Your task to perform on an android device: open app "LinkedIn" Image 0: 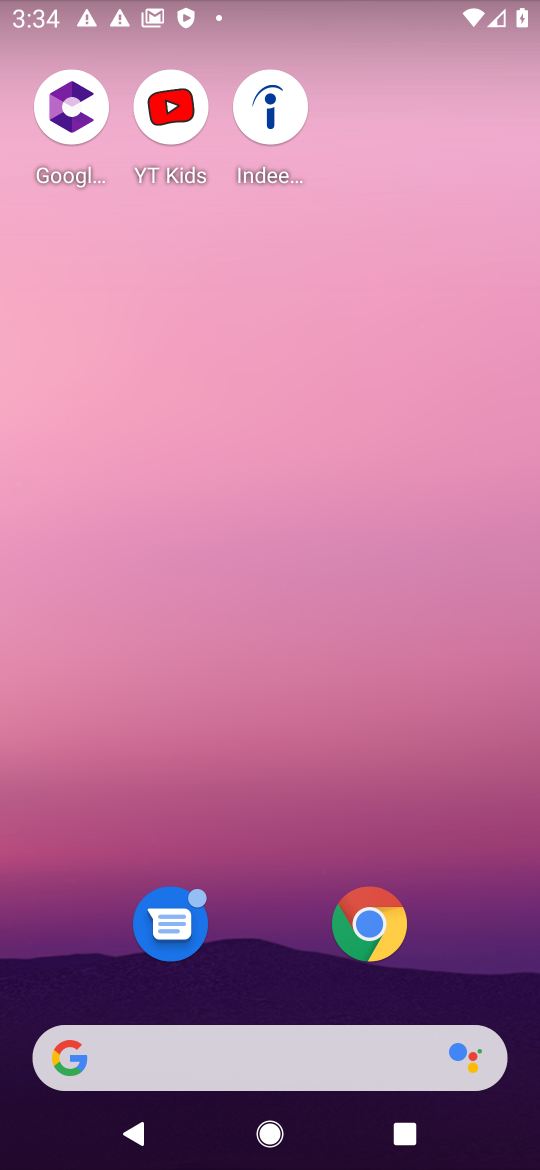
Step 0: drag from (313, 1156) to (310, 18)
Your task to perform on an android device: open app "LinkedIn" Image 1: 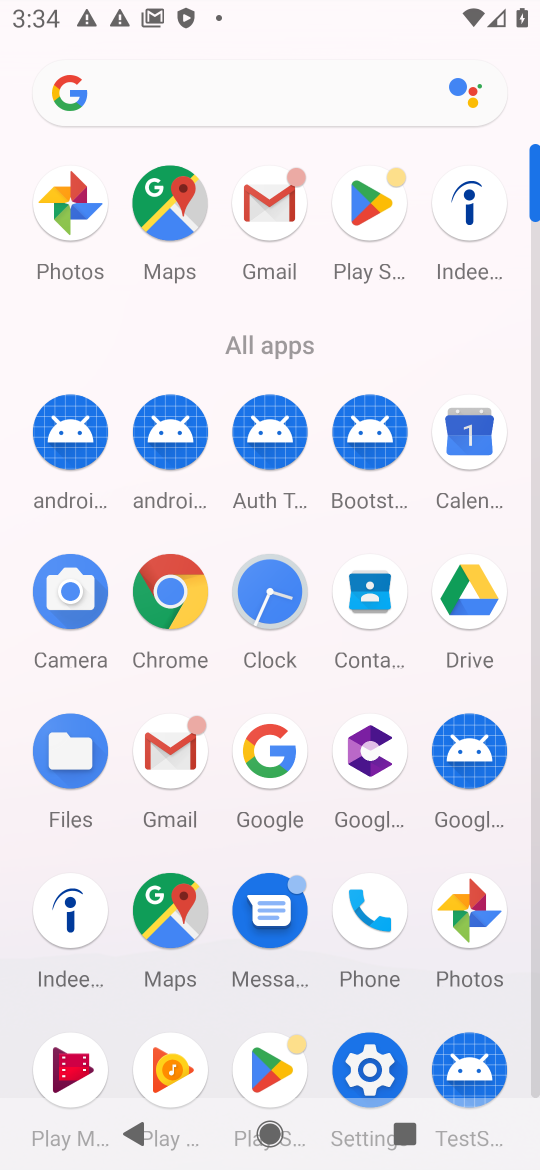
Step 1: click (365, 212)
Your task to perform on an android device: open app "LinkedIn" Image 2: 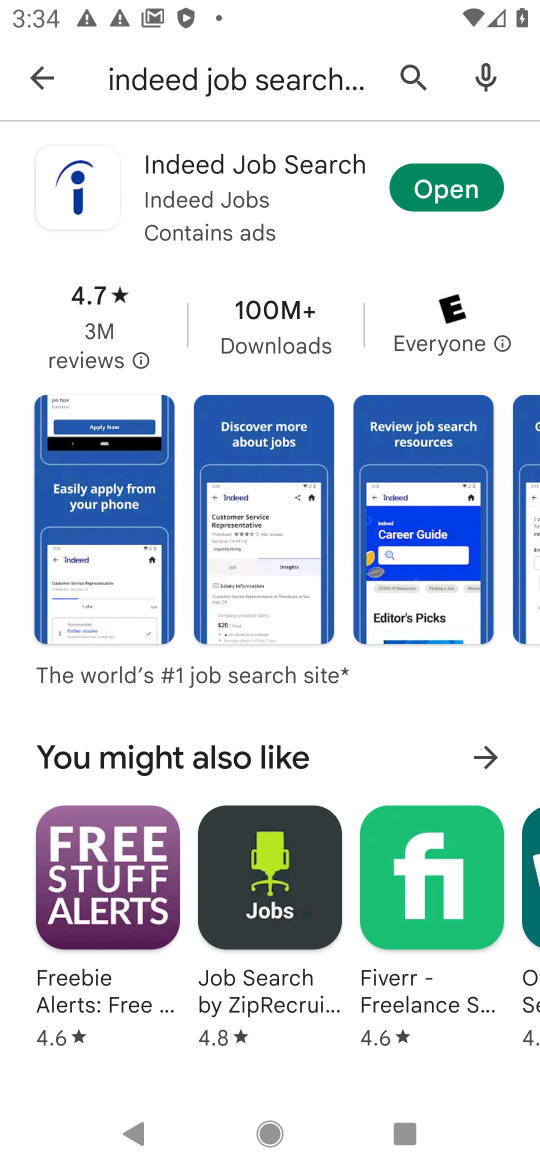
Step 2: click (401, 72)
Your task to perform on an android device: open app "LinkedIn" Image 3: 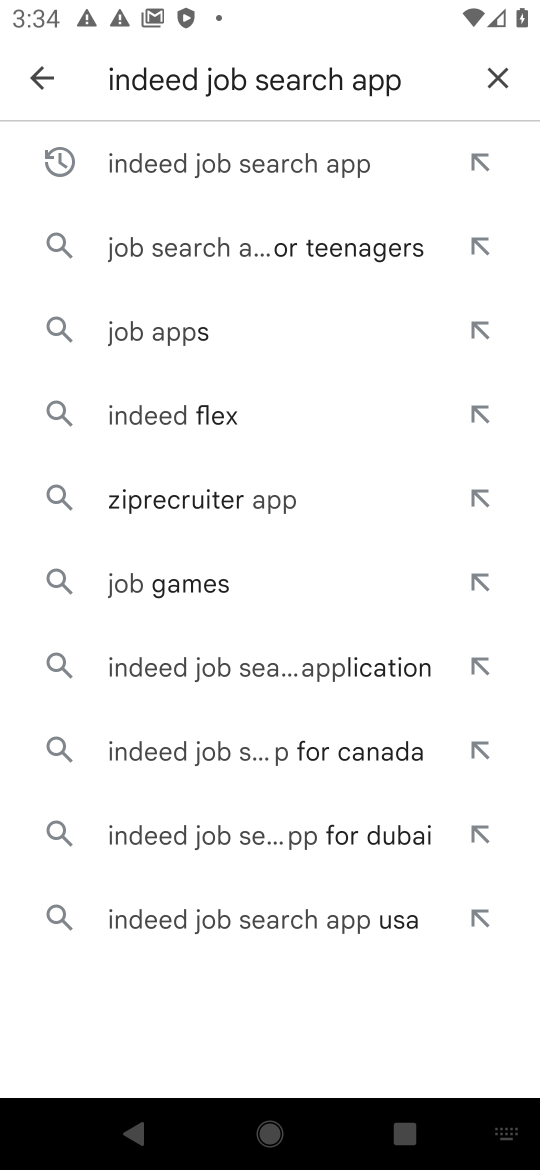
Step 3: click (500, 78)
Your task to perform on an android device: open app "LinkedIn" Image 4: 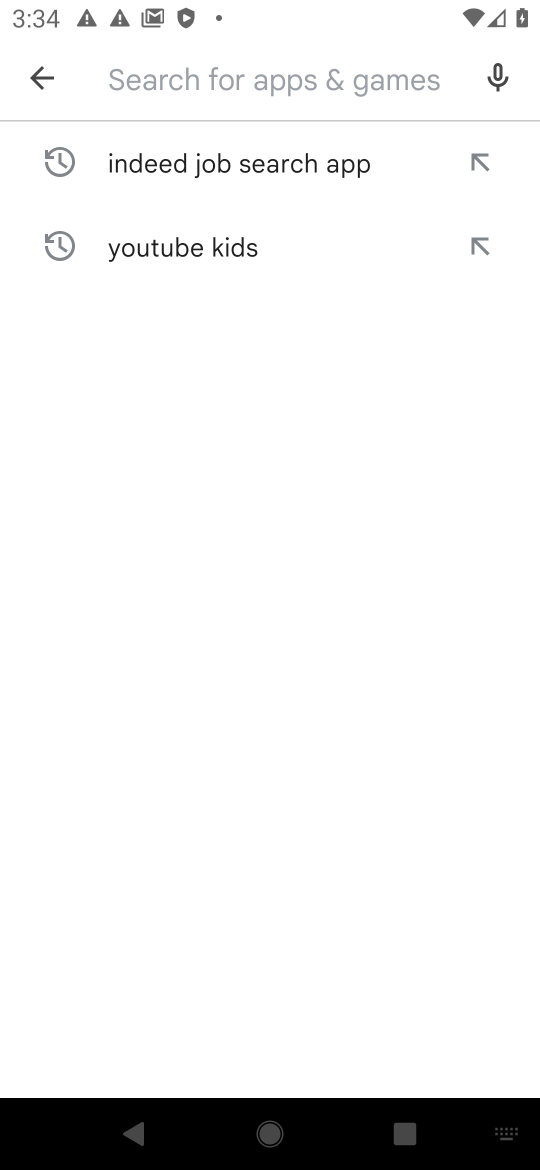
Step 4: type "Linkedin"
Your task to perform on an android device: open app "LinkedIn" Image 5: 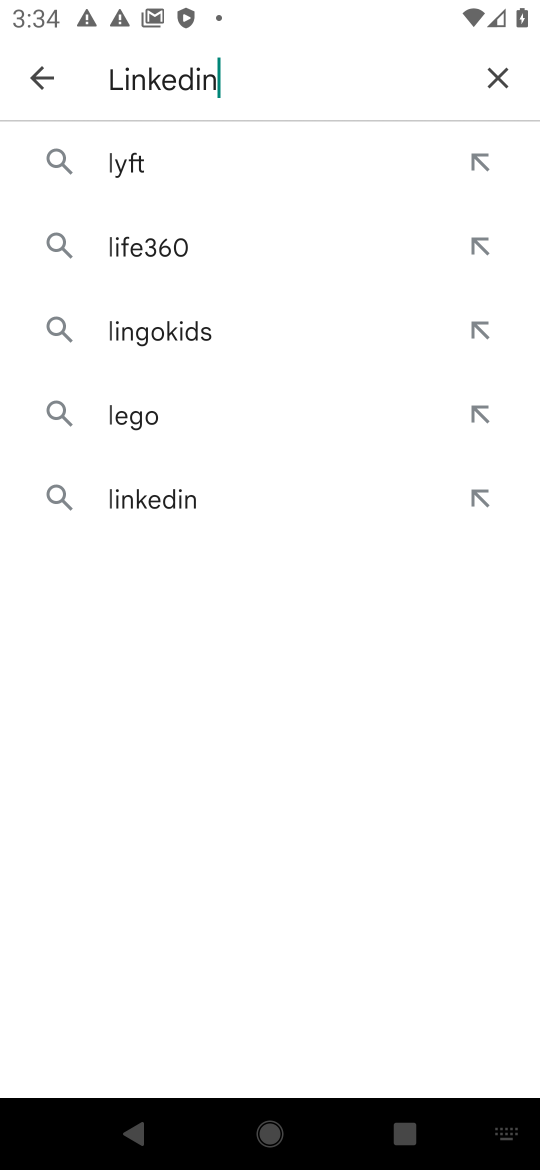
Step 5: type ""
Your task to perform on an android device: open app "LinkedIn" Image 6: 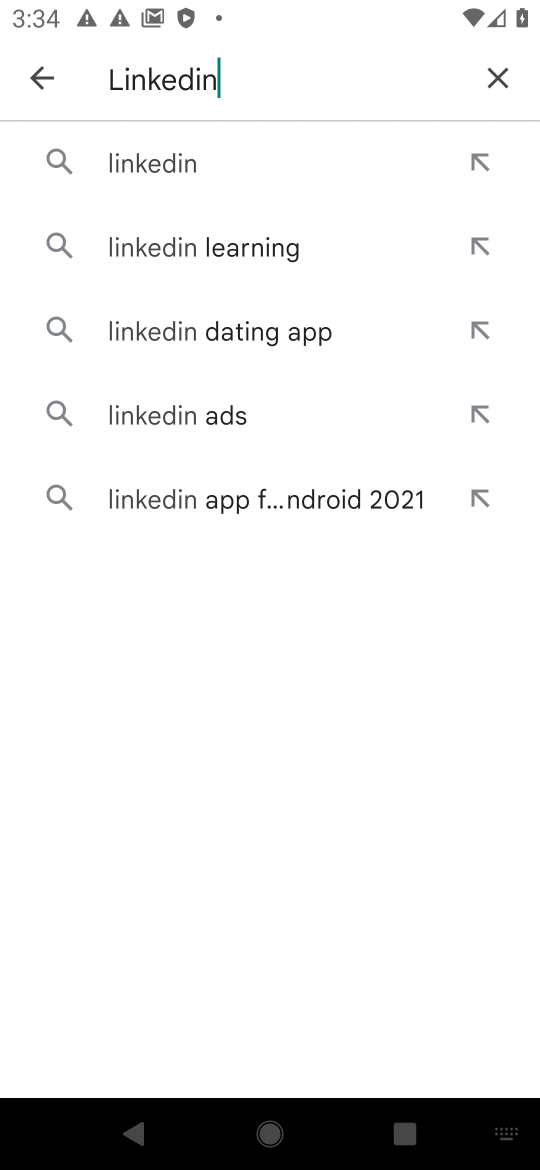
Step 6: click (167, 159)
Your task to perform on an android device: open app "LinkedIn" Image 7: 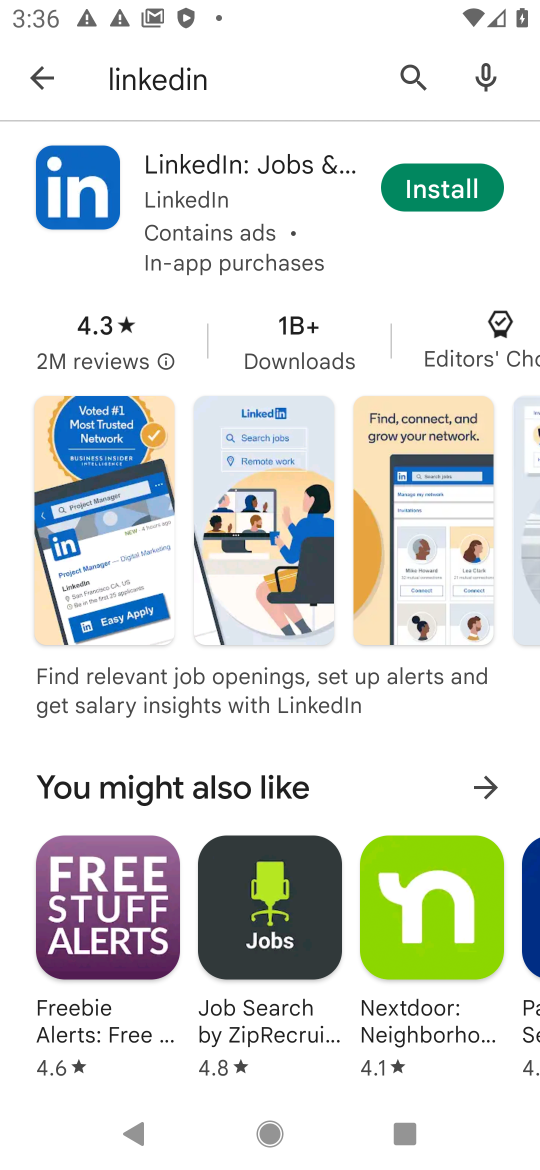
Step 7: task complete